Your task to perform on an android device: toggle notification dots Image 0: 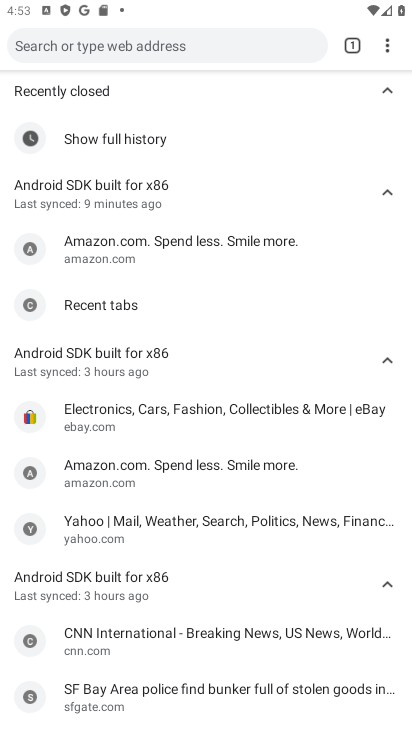
Step 0: press home button
Your task to perform on an android device: toggle notification dots Image 1: 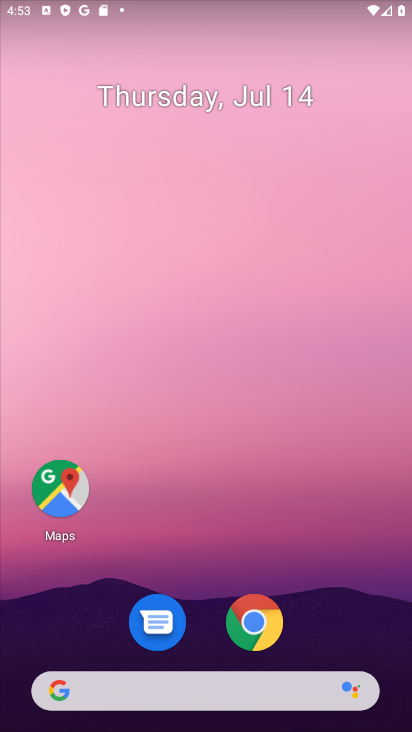
Step 1: drag from (201, 608) to (205, 86)
Your task to perform on an android device: toggle notification dots Image 2: 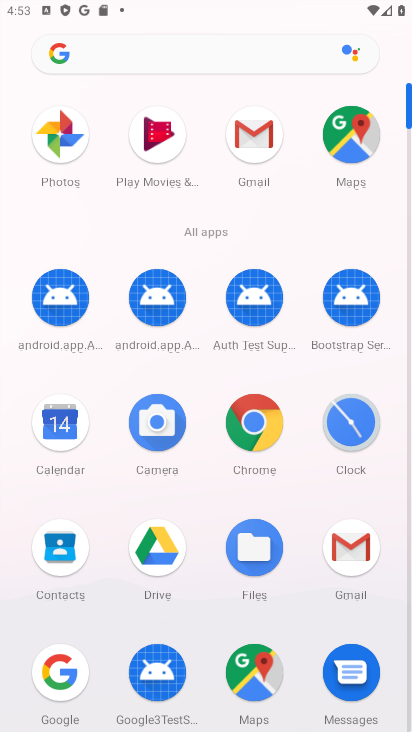
Step 2: drag from (103, 623) to (182, 64)
Your task to perform on an android device: toggle notification dots Image 3: 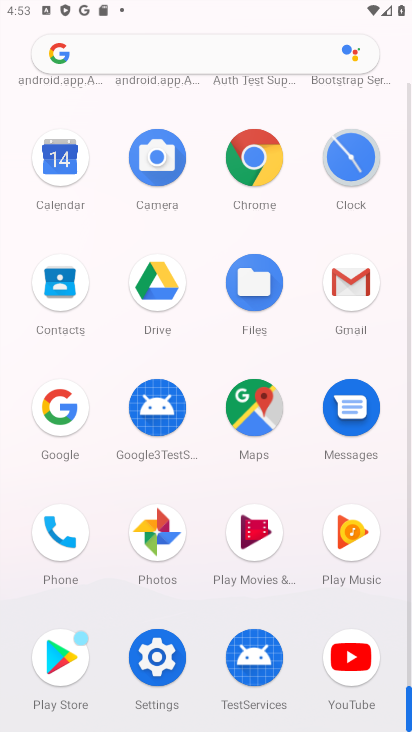
Step 3: click (165, 653)
Your task to perform on an android device: toggle notification dots Image 4: 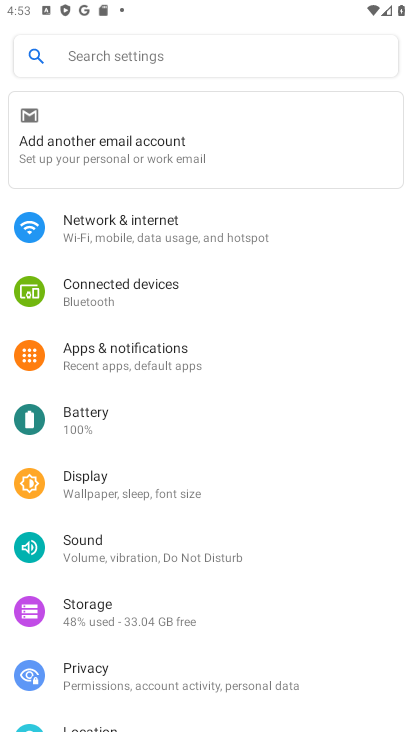
Step 4: click (141, 352)
Your task to perform on an android device: toggle notification dots Image 5: 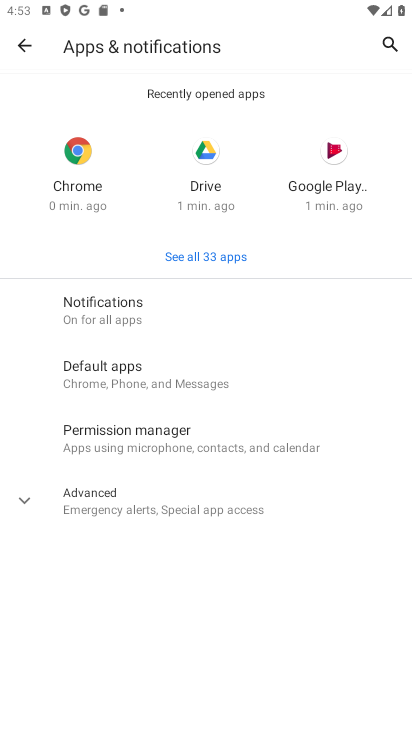
Step 5: click (150, 321)
Your task to perform on an android device: toggle notification dots Image 6: 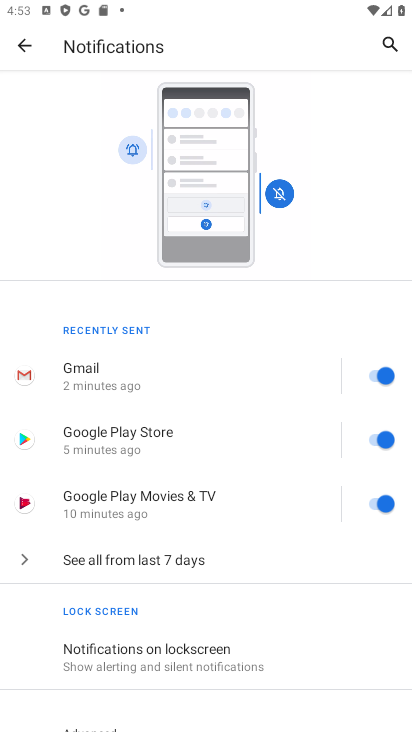
Step 6: drag from (260, 44) to (378, 0)
Your task to perform on an android device: toggle notification dots Image 7: 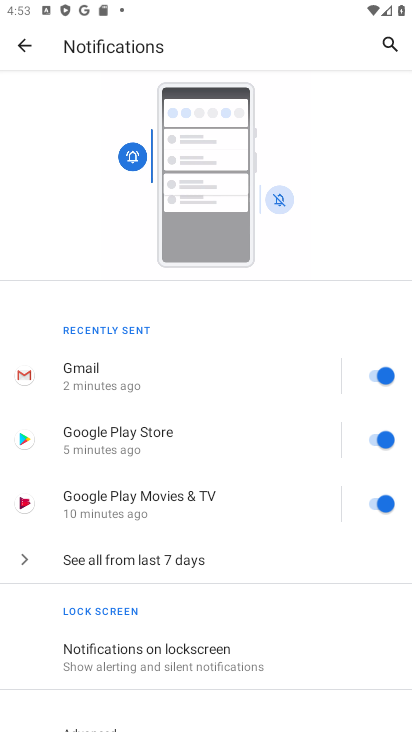
Step 7: drag from (204, 643) to (209, 137)
Your task to perform on an android device: toggle notification dots Image 8: 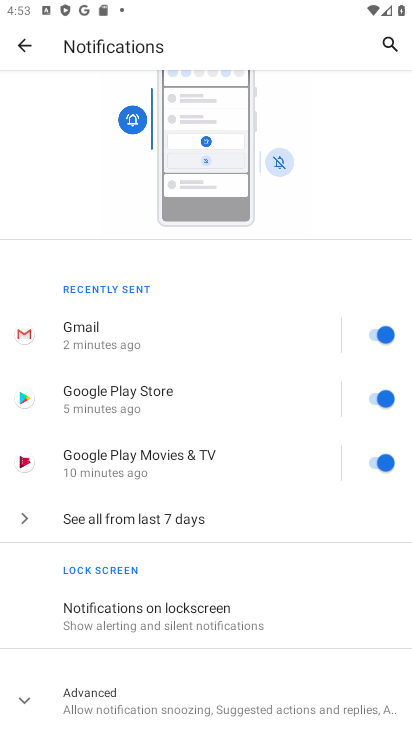
Step 8: click (200, 708)
Your task to perform on an android device: toggle notification dots Image 9: 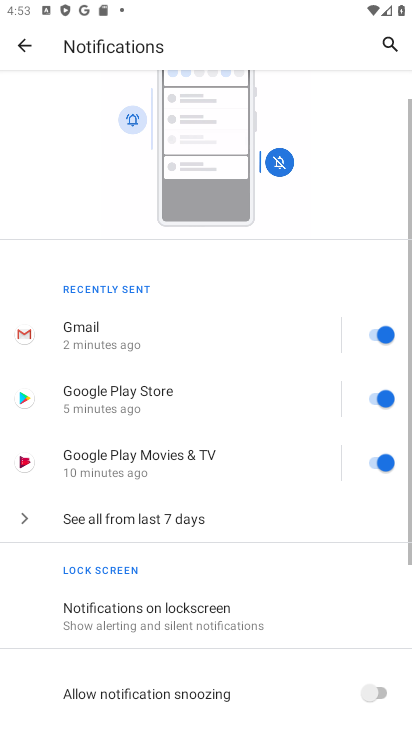
Step 9: drag from (200, 708) to (207, 126)
Your task to perform on an android device: toggle notification dots Image 10: 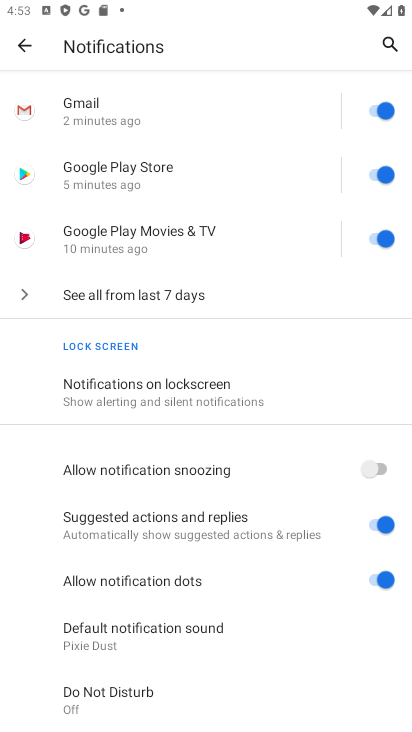
Step 10: click (388, 574)
Your task to perform on an android device: toggle notification dots Image 11: 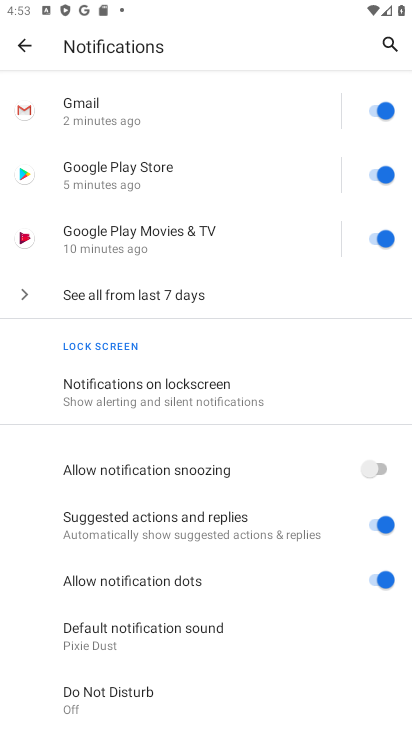
Step 11: click (388, 574)
Your task to perform on an android device: toggle notification dots Image 12: 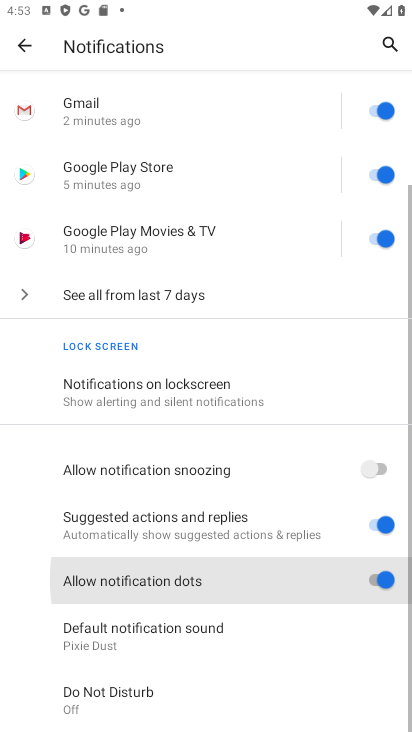
Step 12: click (388, 574)
Your task to perform on an android device: toggle notification dots Image 13: 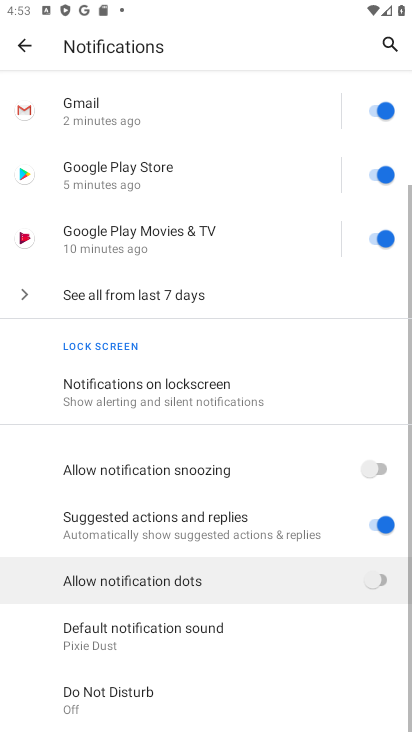
Step 13: click (388, 574)
Your task to perform on an android device: toggle notification dots Image 14: 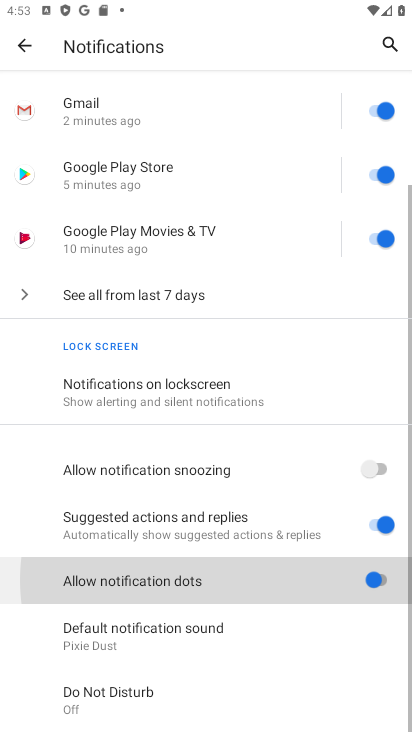
Step 14: click (388, 574)
Your task to perform on an android device: toggle notification dots Image 15: 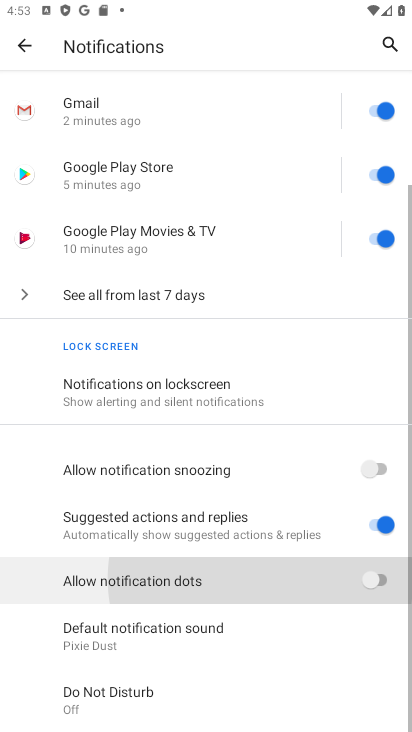
Step 15: click (388, 574)
Your task to perform on an android device: toggle notification dots Image 16: 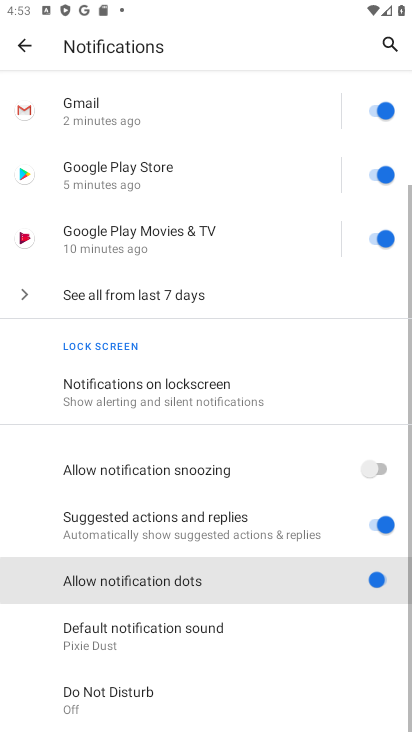
Step 16: click (388, 574)
Your task to perform on an android device: toggle notification dots Image 17: 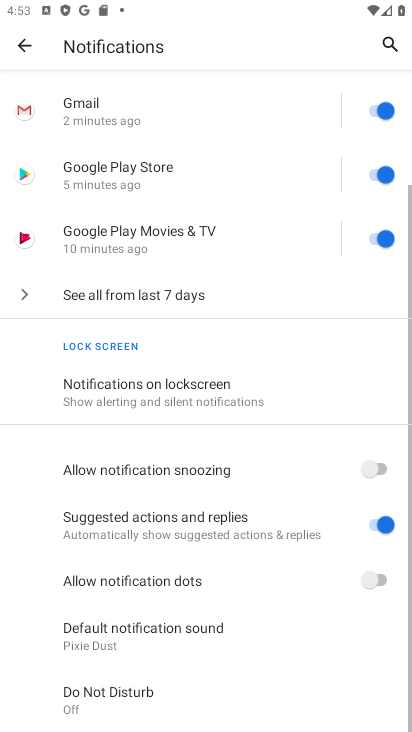
Step 17: task complete